Your task to perform on an android device: change notifications settings Image 0: 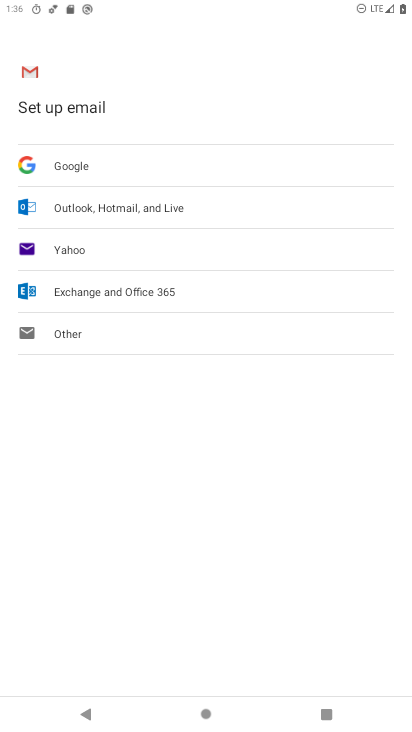
Step 0: press home button
Your task to perform on an android device: change notifications settings Image 1: 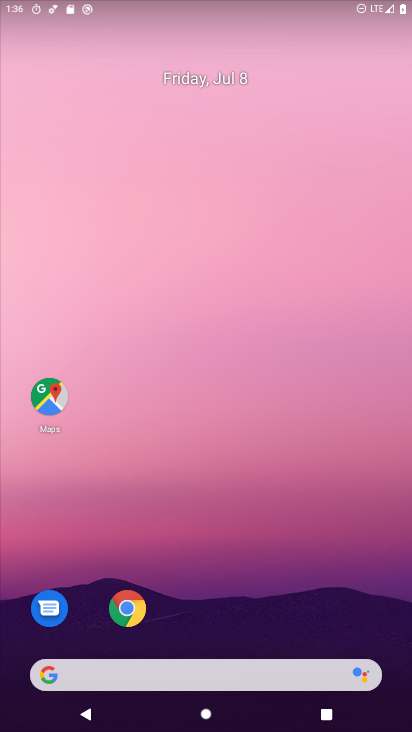
Step 1: drag from (255, 726) to (305, 140)
Your task to perform on an android device: change notifications settings Image 2: 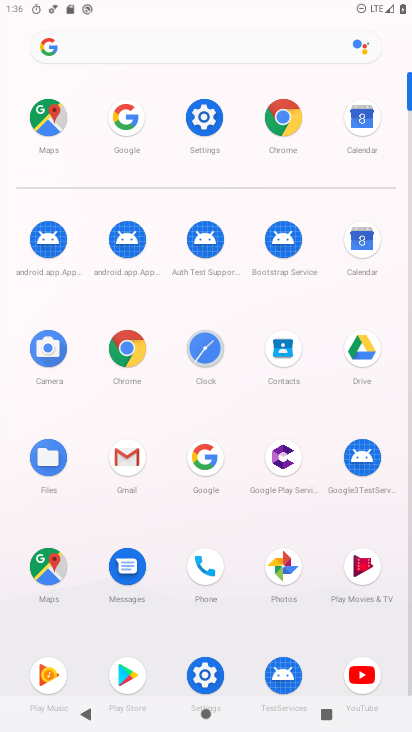
Step 2: click (206, 113)
Your task to perform on an android device: change notifications settings Image 3: 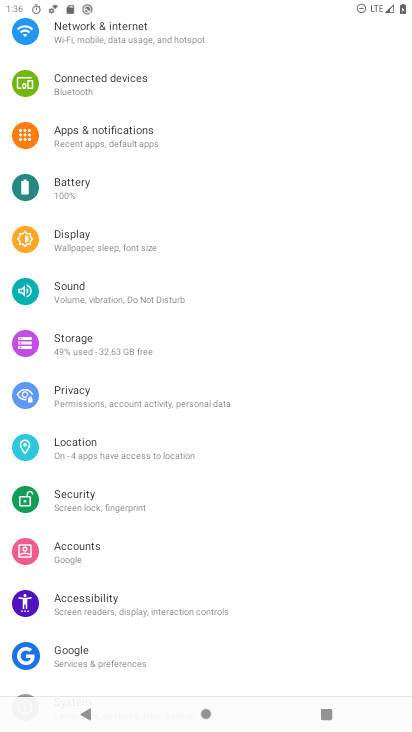
Step 3: click (106, 126)
Your task to perform on an android device: change notifications settings Image 4: 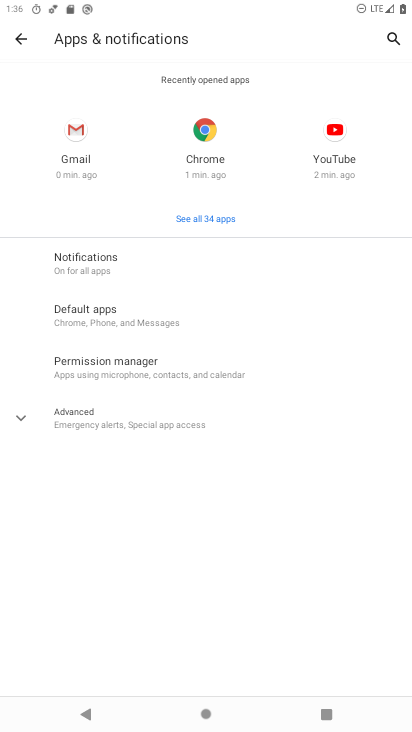
Step 4: click (83, 265)
Your task to perform on an android device: change notifications settings Image 5: 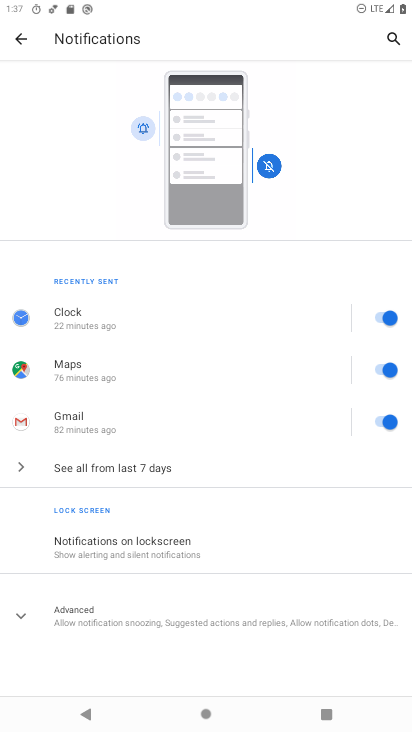
Step 5: click (115, 621)
Your task to perform on an android device: change notifications settings Image 6: 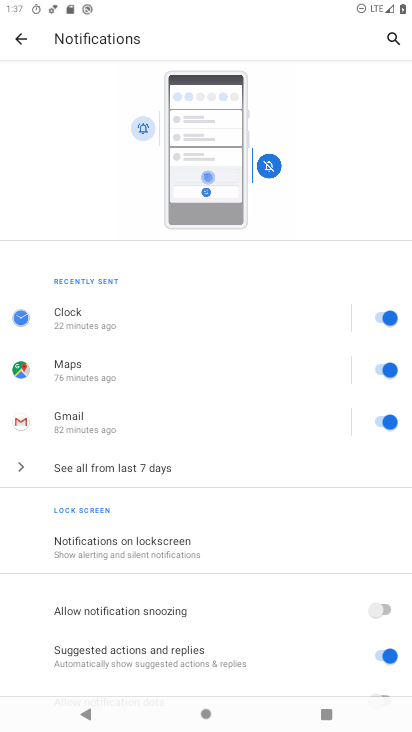
Step 6: drag from (214, 661) to (221, 594)
Your task to perform on an android device: change notifications settings Image 7: 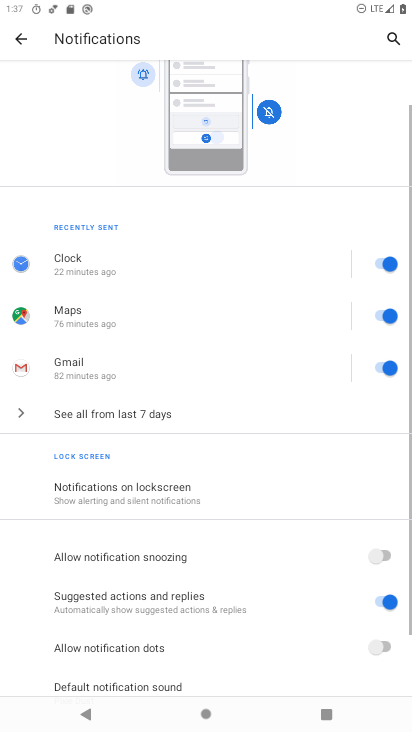
Step 7: click (228, 507)
Your task to perform on an android device: change notifications settings Image 8: 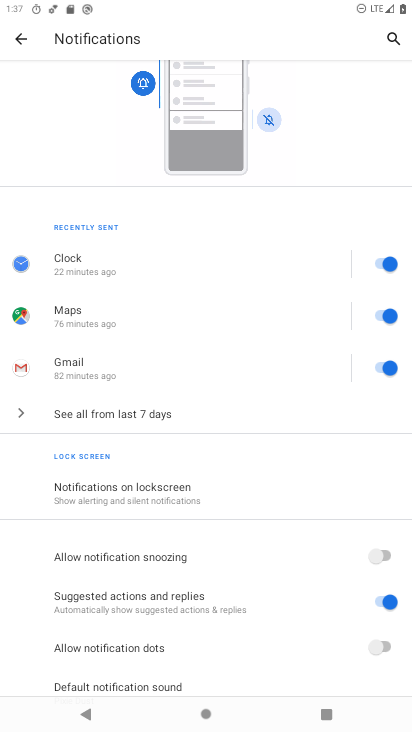
Step 8: click (388, 602)
Your task to perform on an android device: change notifications settings Image 9: 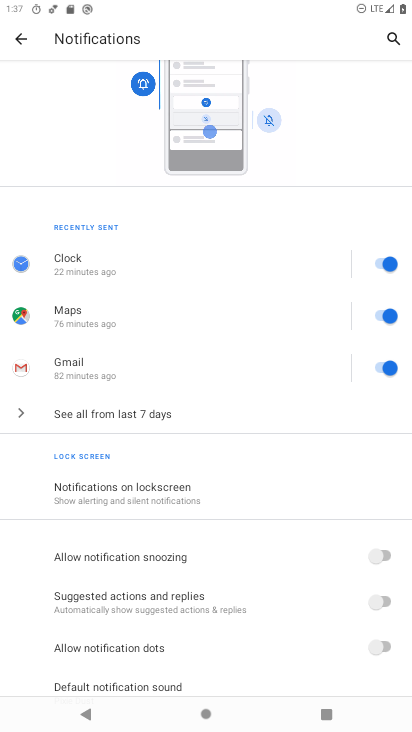
Step 9: task complete